Your task to perform on an android device: Go to privacy settings Image 0: 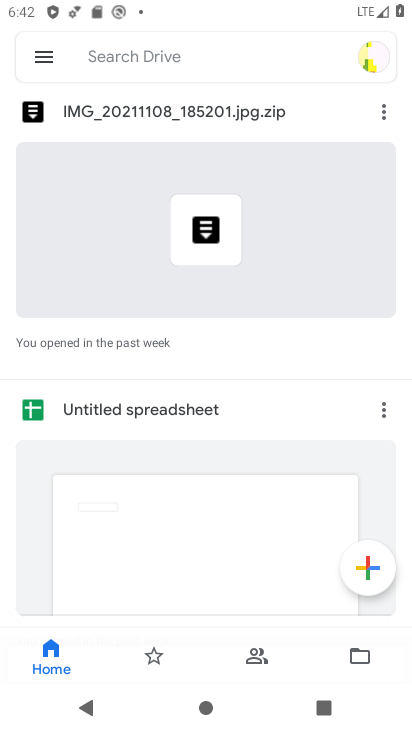
Step 0: press back button
Your task to perform on an android device: Go to privacy settings Image 1: 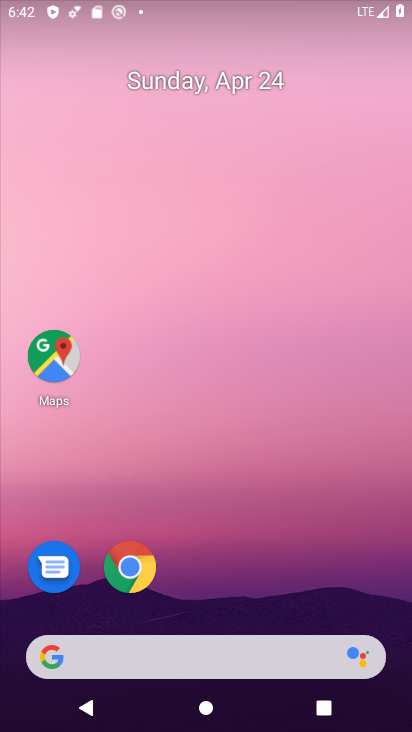
Step 1: drag from (333, 608) to (231, 8)
Your task to perform on an android device: Go to privacy settings Image 2: 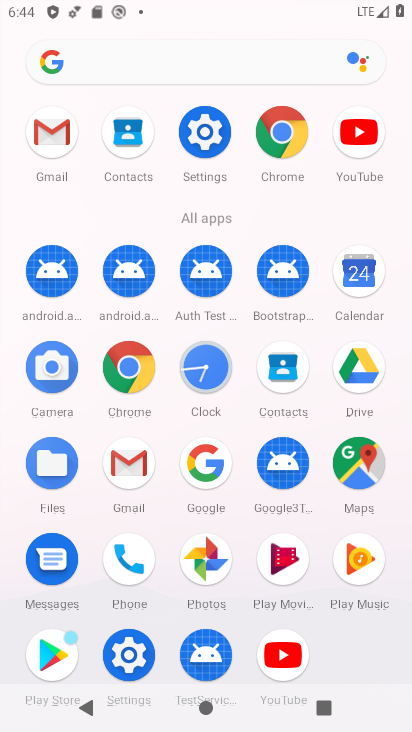
Step 2: click (125, 643)
Your task to perform on an android device: Go to privacy settings Image 3: 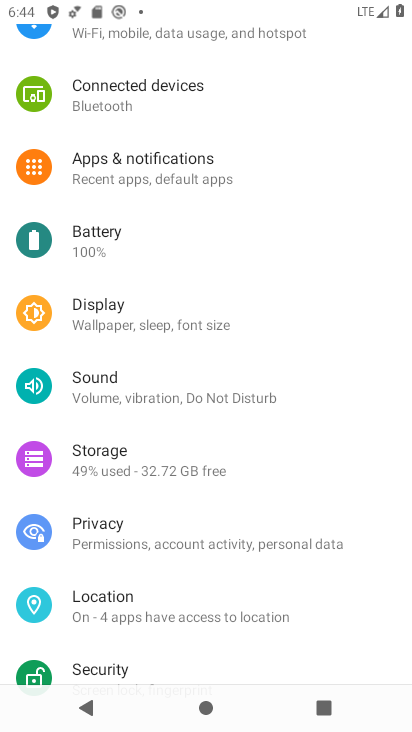
Step 3: click (128, 544)
Your task to perform on an android device: Go to privacy settings Image 4: 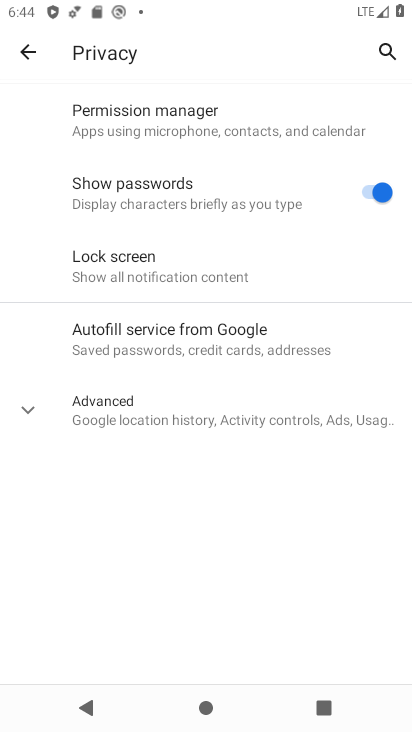
Step 4: task complete